Your task to perform on an android device: turn on improve location accuracy Image 0: 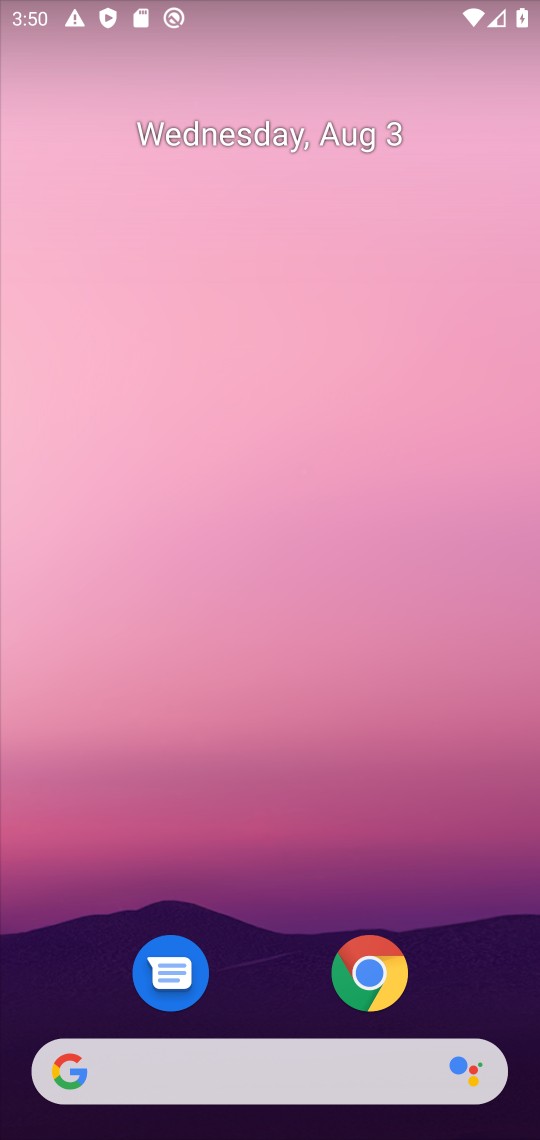
Step 0: drag from (259, 867) to (281, 186)
Your task to perform on an android device: turn on improve location accuracy Image 1: 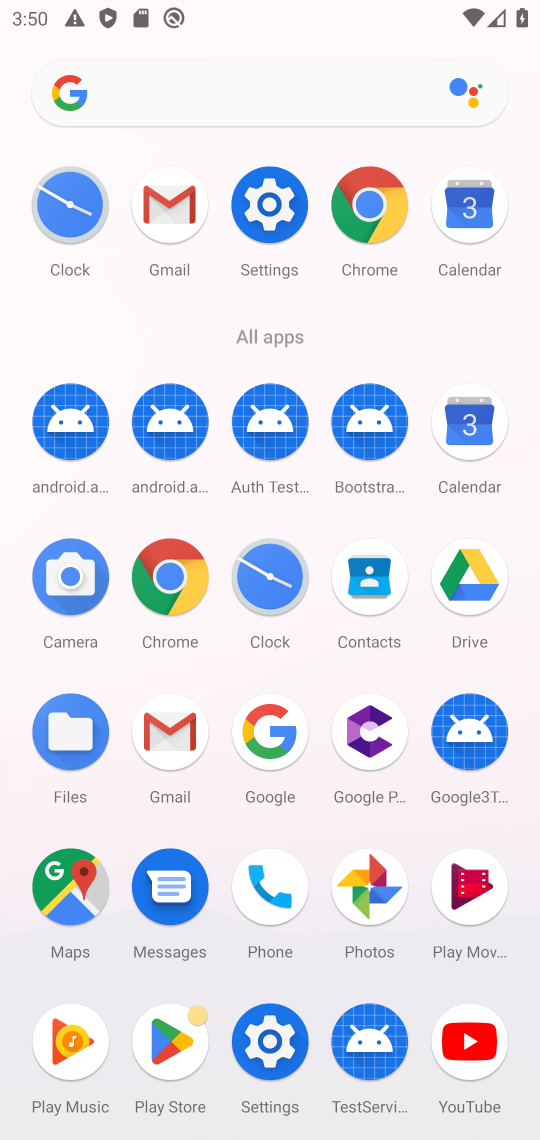
Step 1: click (265, 188)
Your task to perform on an android device: turn on improve location accuracy Image 2: 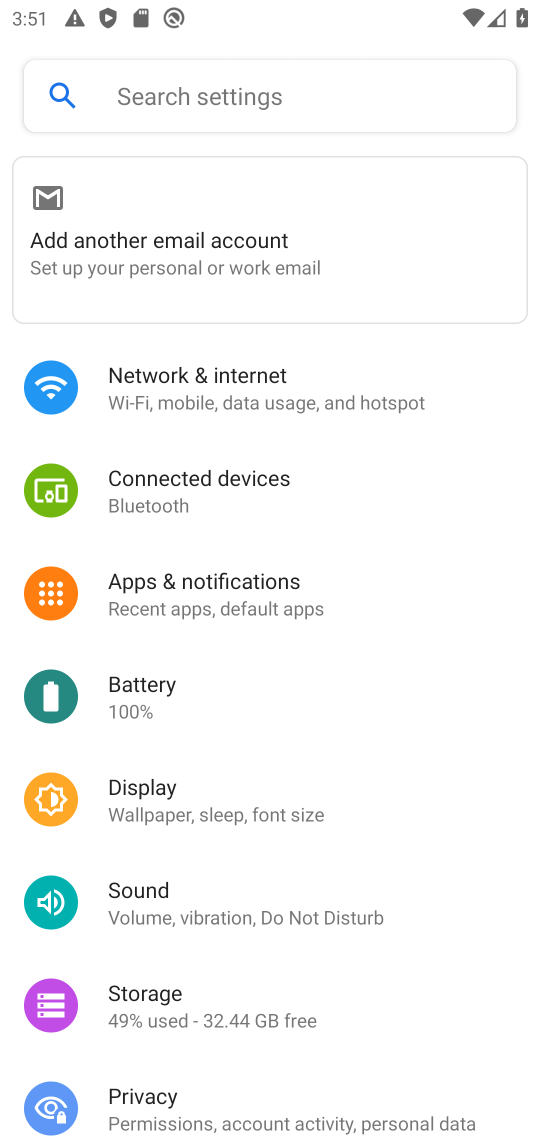
Step 2: drag from (237, 970) to (242, 800)
Your task to perform on an android device: turn on improve location accuracy Image 3: 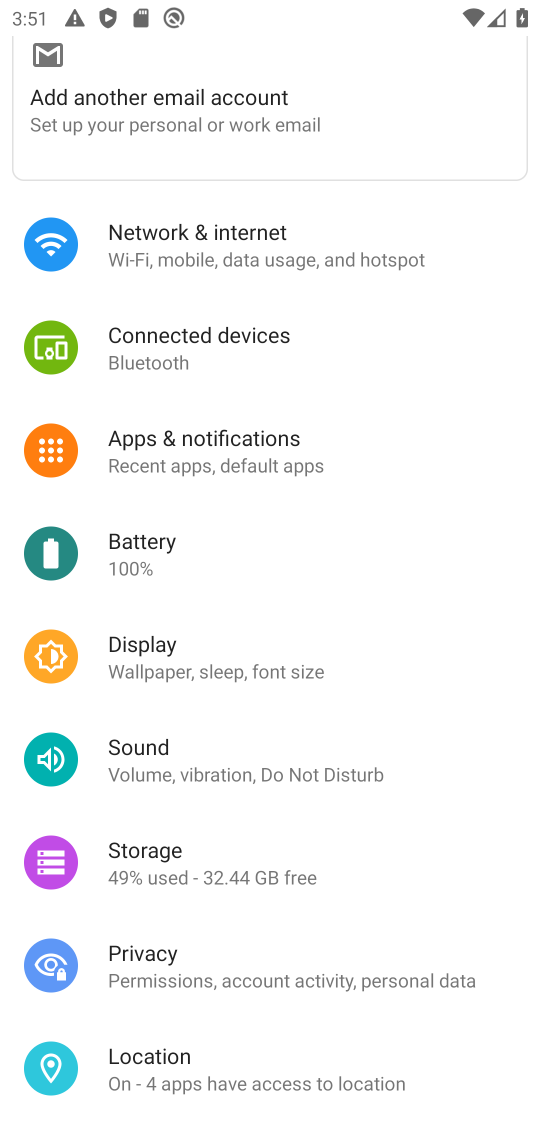
Step 3: click (230, 1066)
Your task to perform on an android device: turn on improve location accuracy Image 4: 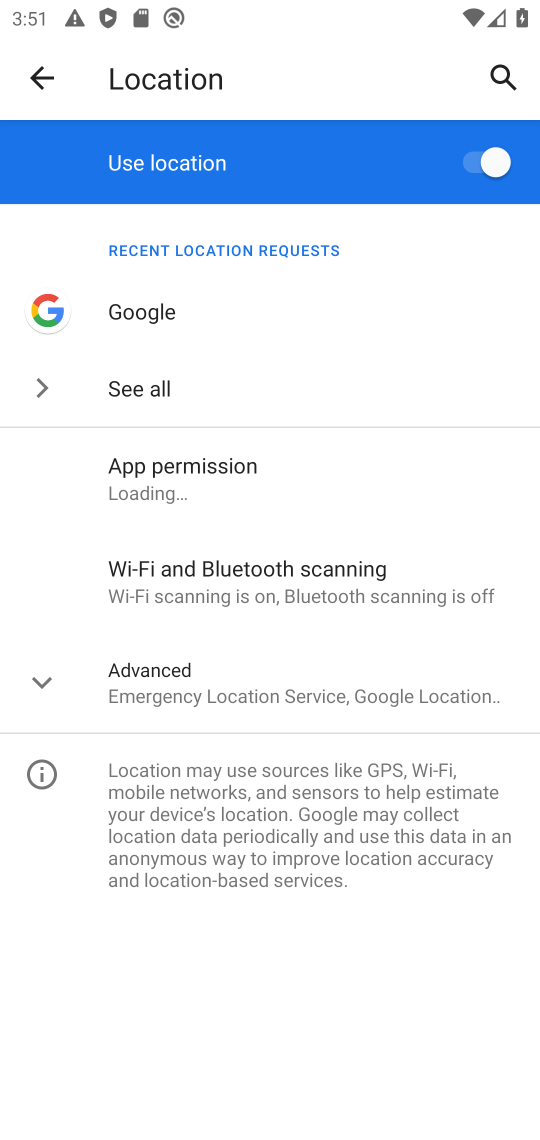
Step 4: click (45, 686)
Your task to perform on an android device: turn on improve location accuracy Image 5: 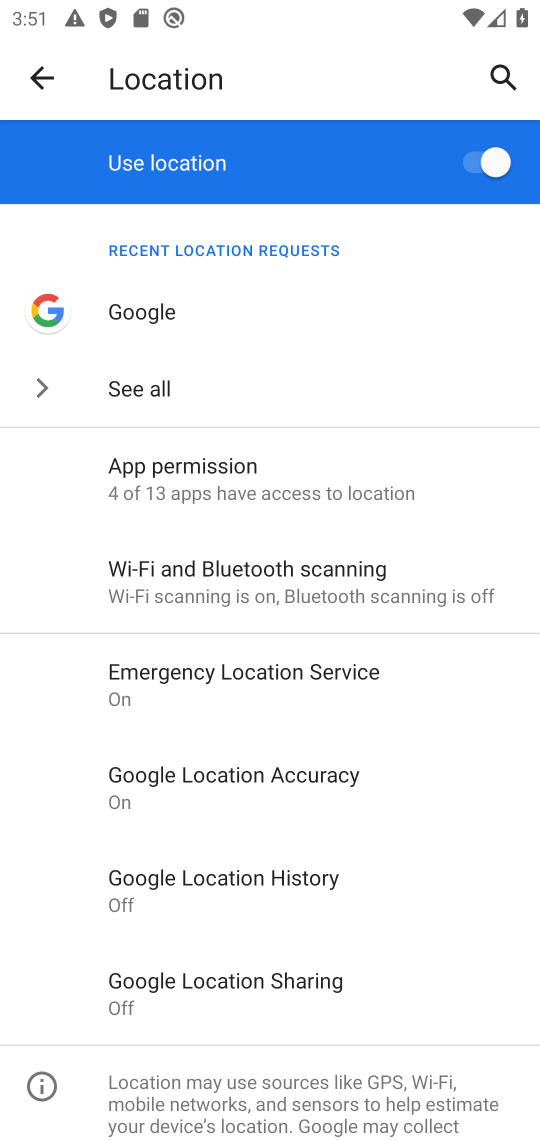
Step 5: task complete